Your task to perform on an android device: toggle pop-ups in chrome Image 0: 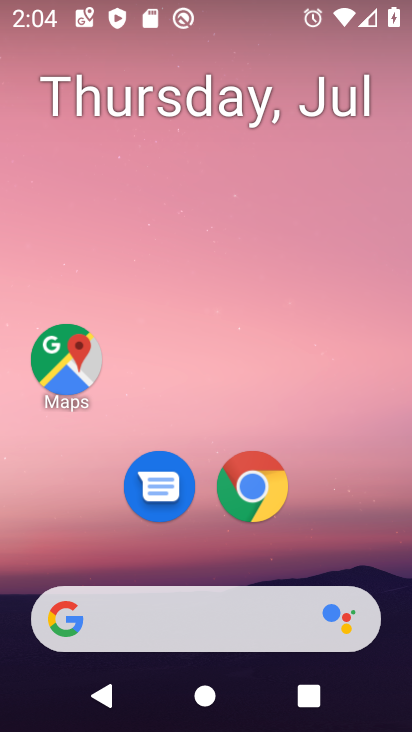
Step 0: click (236, 490)
Your task to perform on an android device: toggle pop-ups in chrome Image 1: 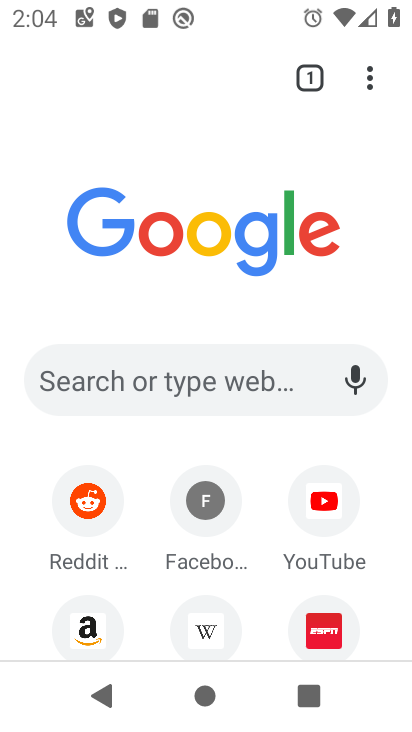
Step 1: drag from (368, 78) to (79, 552)
Your task to perform on an android device: toggle pop-ups in chrome Image 2: 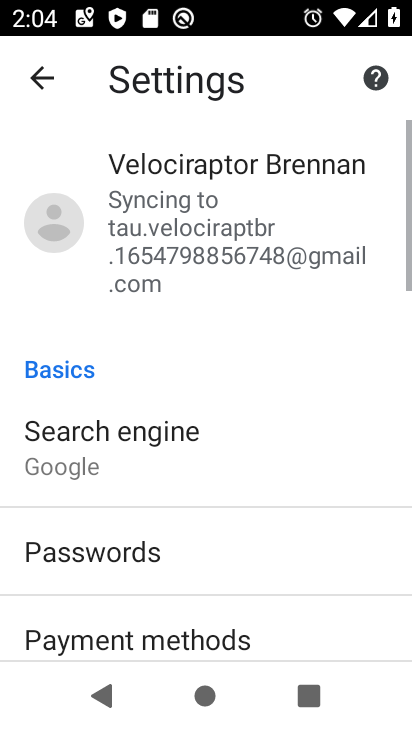
Step 2: drag from (141, 606) to (290, 44)
Your task to perform on an android device: toggle pop-ups in chrome Image 3: 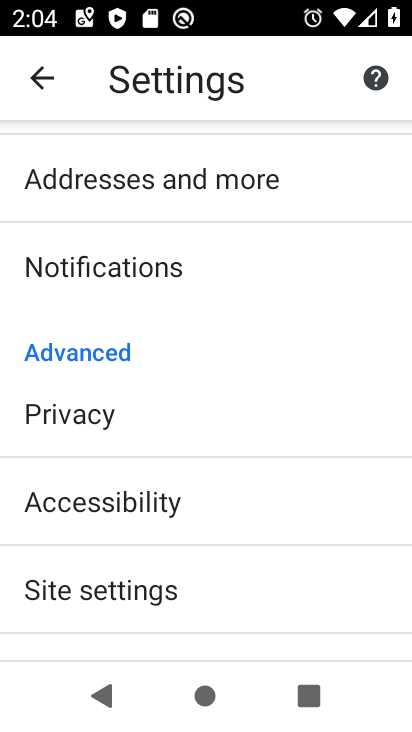
Step 3: drag from (109, 577) to (200, 255)
Your task to perform on an android device: toggle pop-ups in chrome Image 4: 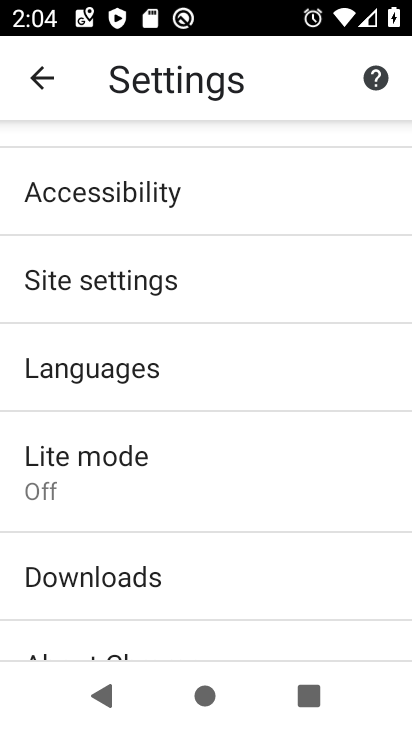
Step 4: click (129, 294)
Your task to perform on an android device: toggle pop-ups in chrome Image 5: 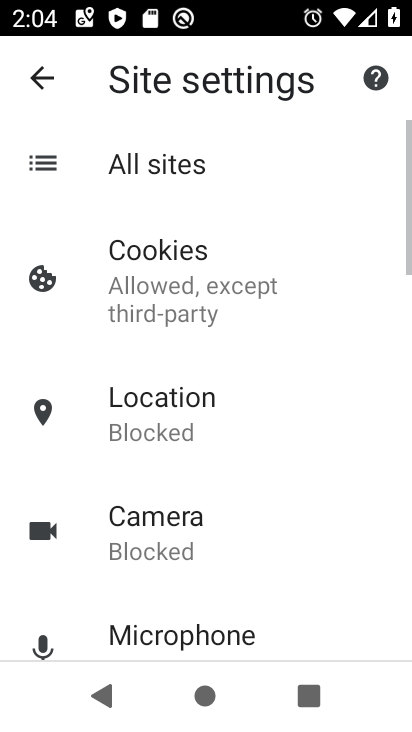
Step 5: drag from (182, 562) to (272, 104)
Your task to perform on an android device: toggle pop-ups in chrome Image 6: 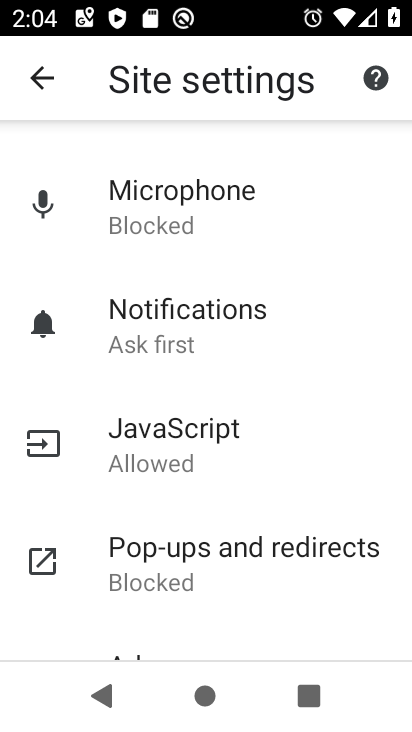
Step 6: click (188, 569)
Your task to perform on an android device: toggle pop-ups in chrome Image 7: 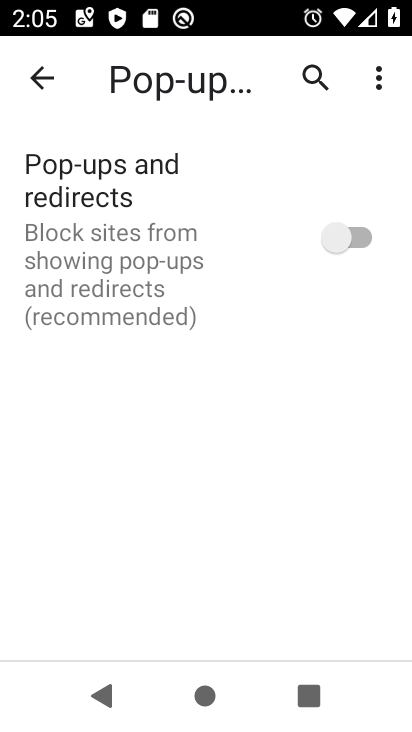
Step 7: click (354, 219)
Your task to perform on an android device: toggle pop-ups in chrome Image 8: 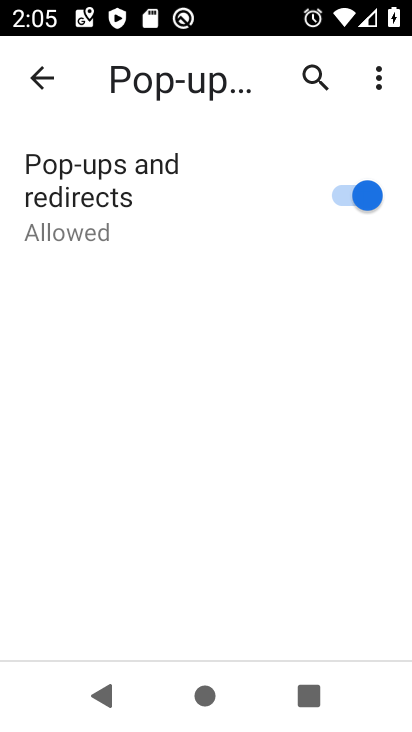
Step 8: task complete